Your task to perform on an android device: Go to accessibility settings Image 0: 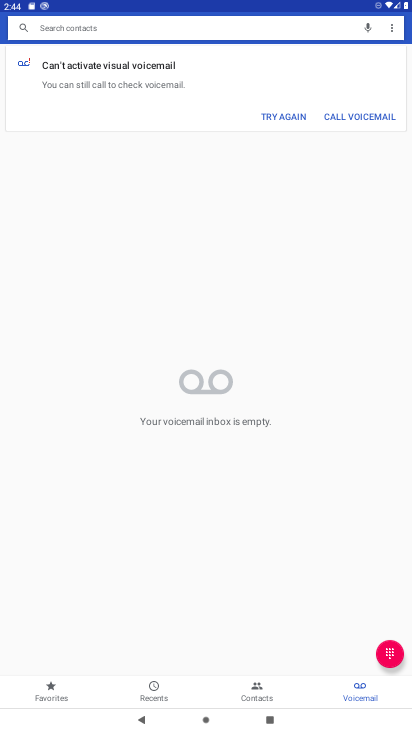
Step 0: press home button
Your task to perform on an android device: Go to accessibility settings Image 1: 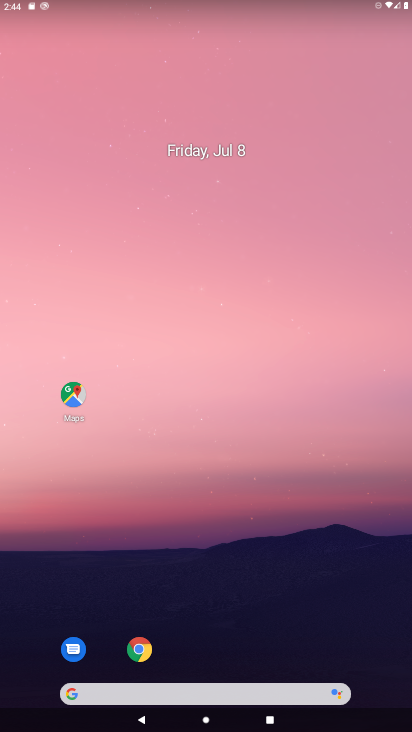
Step 1: drag from (394, 655) to (354, 71)
Your task to perform on an android device: Go to accessibility settings Image 2: 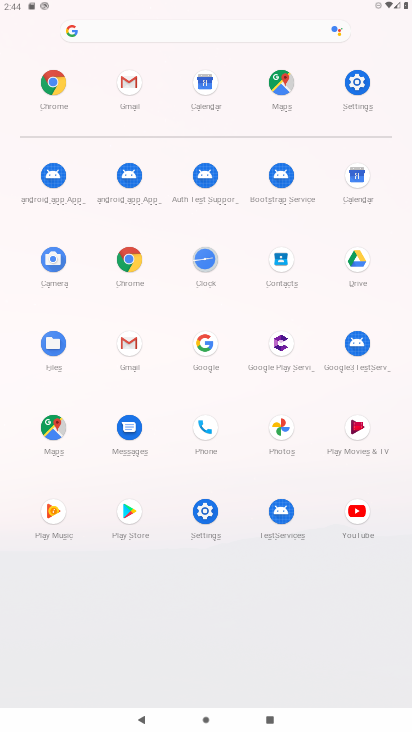
Step 2: click (203, 511)
Your task to perform on an android device: Go to accessibility settings Image 3: 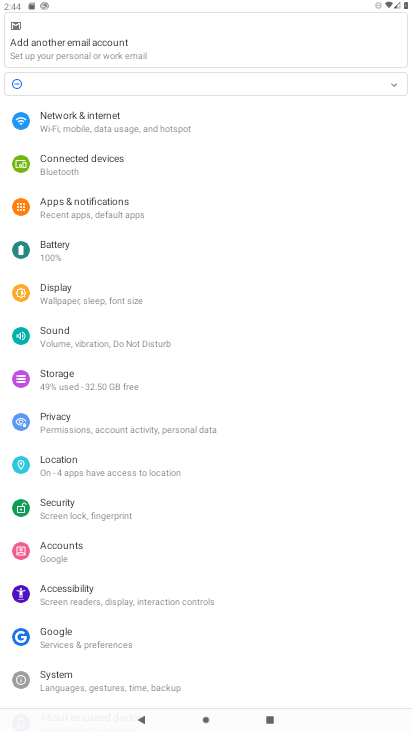
Step 3: drag from (293, 635) to (258, 229)
Your task to perform on an android device: Go to accessibility settings Image 4: 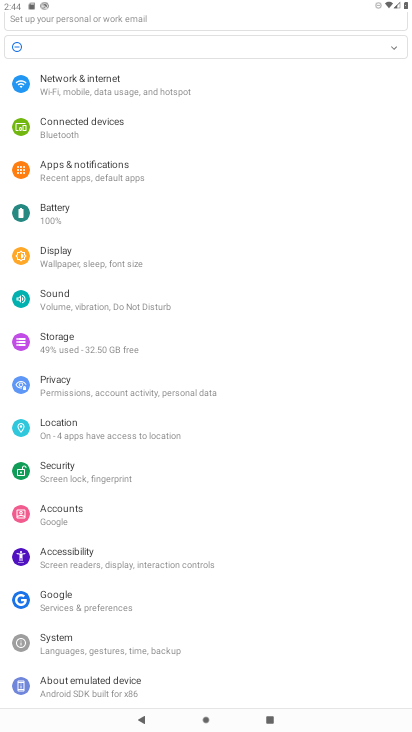
Step 4: click (65, 551)
Your task to perform on an android device: Go to accessibility settings Image 5: 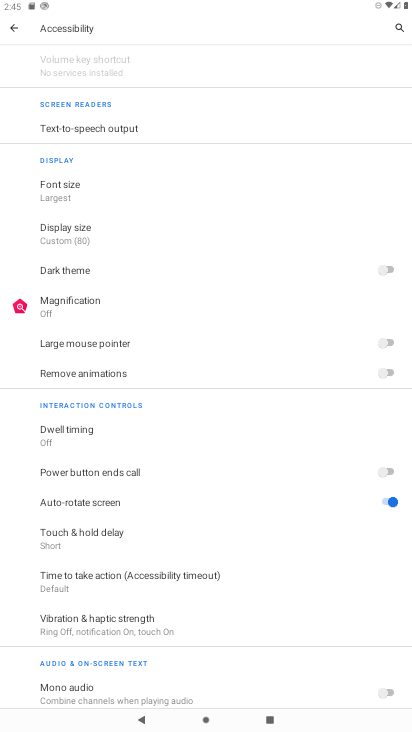
Step 5: task complete